Your task to perform on an android device: change the clock display to analog Image 0: 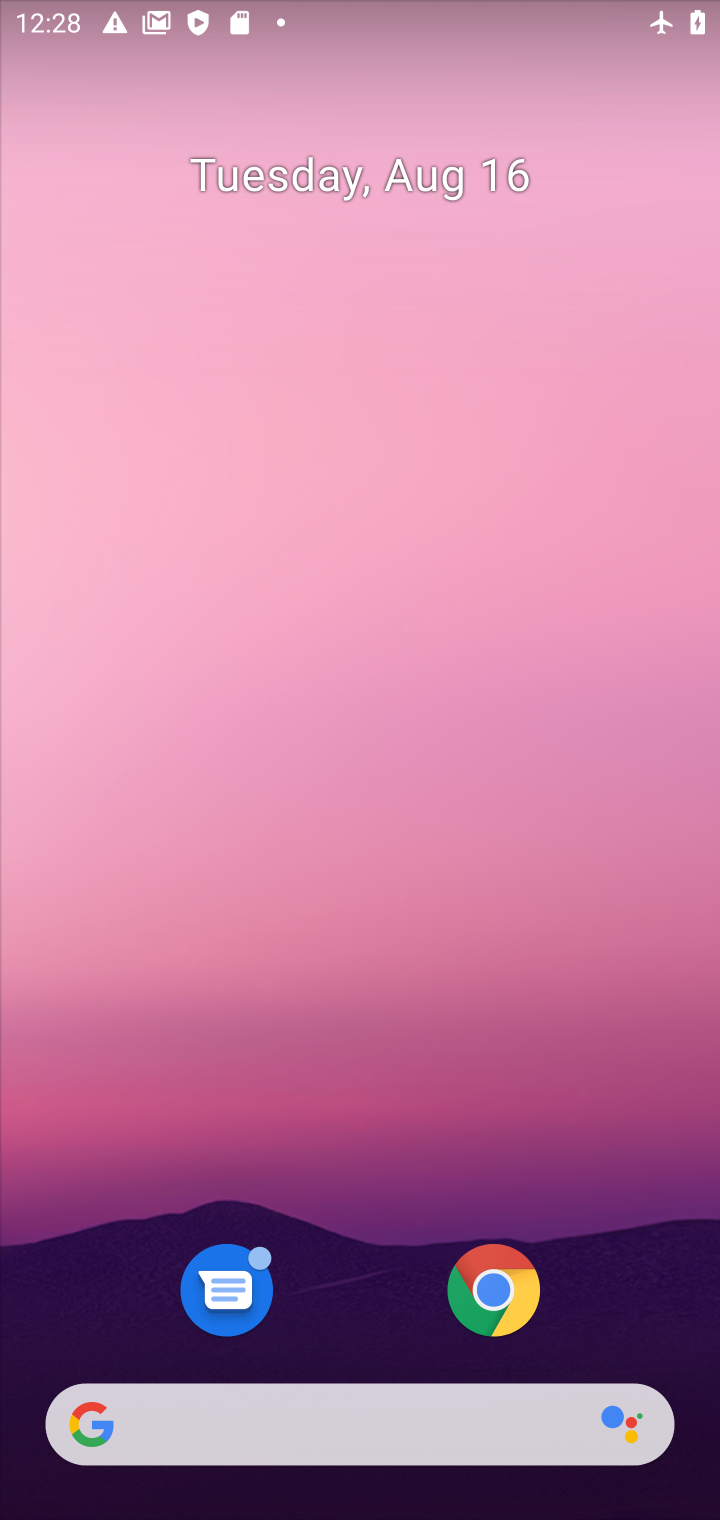
Step 0: press home button
Your task to perform on an android device: change the clock display to analog Image 1: 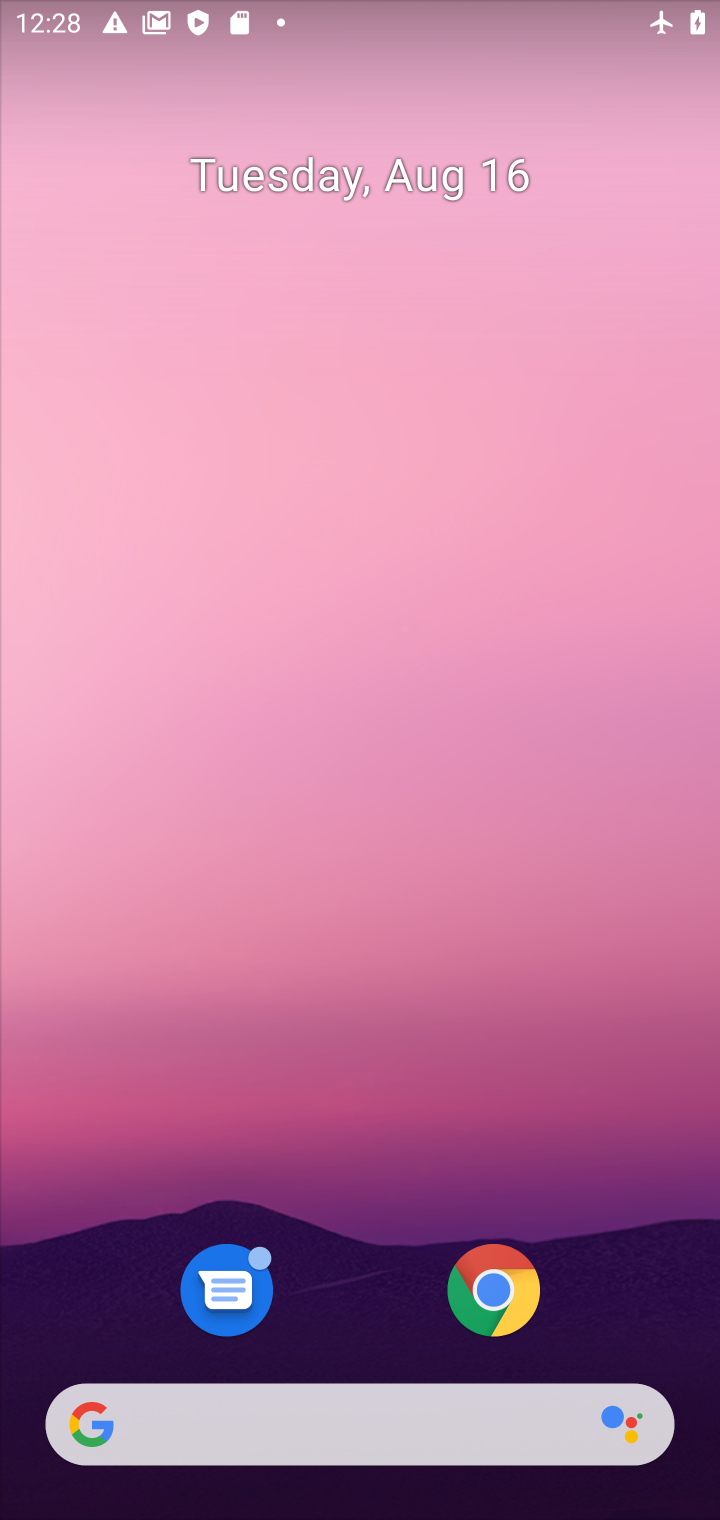
Step 1: drag from (362, 1047) to (372, 27)
Your task to perform on an android device: change the clock display to analog Image 2: 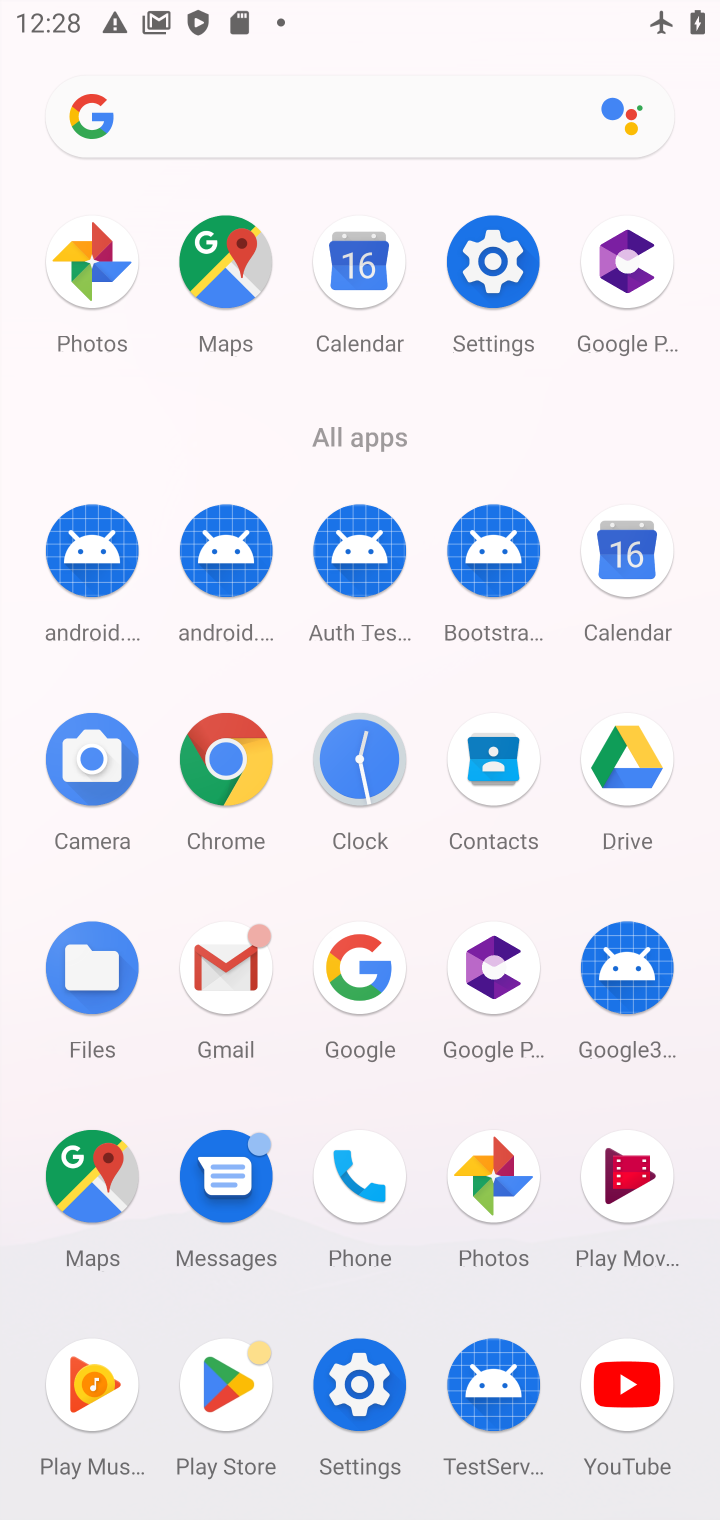
Step 2: click (360, 740)
Your task to perform on an android device: change the clock display to analog Image 3: 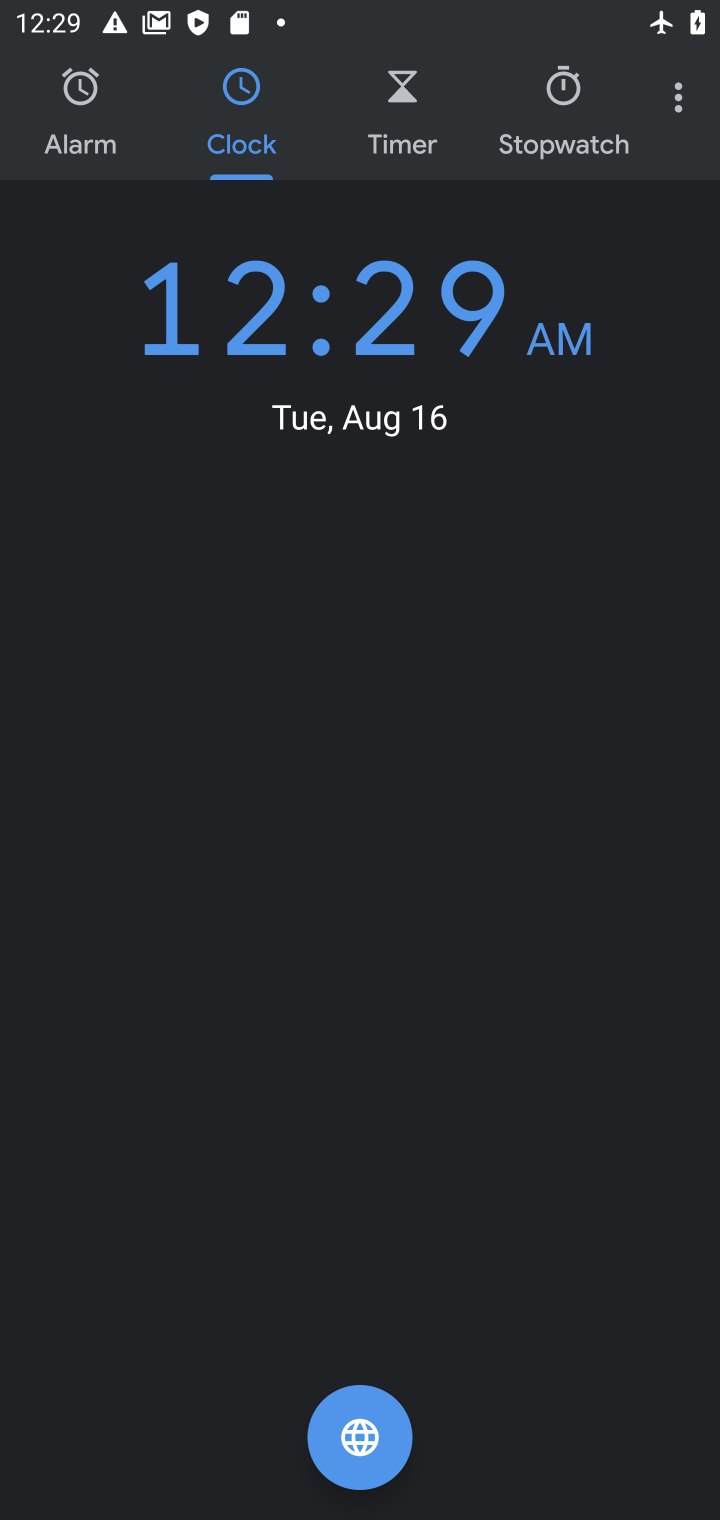
Step 3: click (670, 106)
Your task to perform on an android device: change the clock display to analog Image 4: 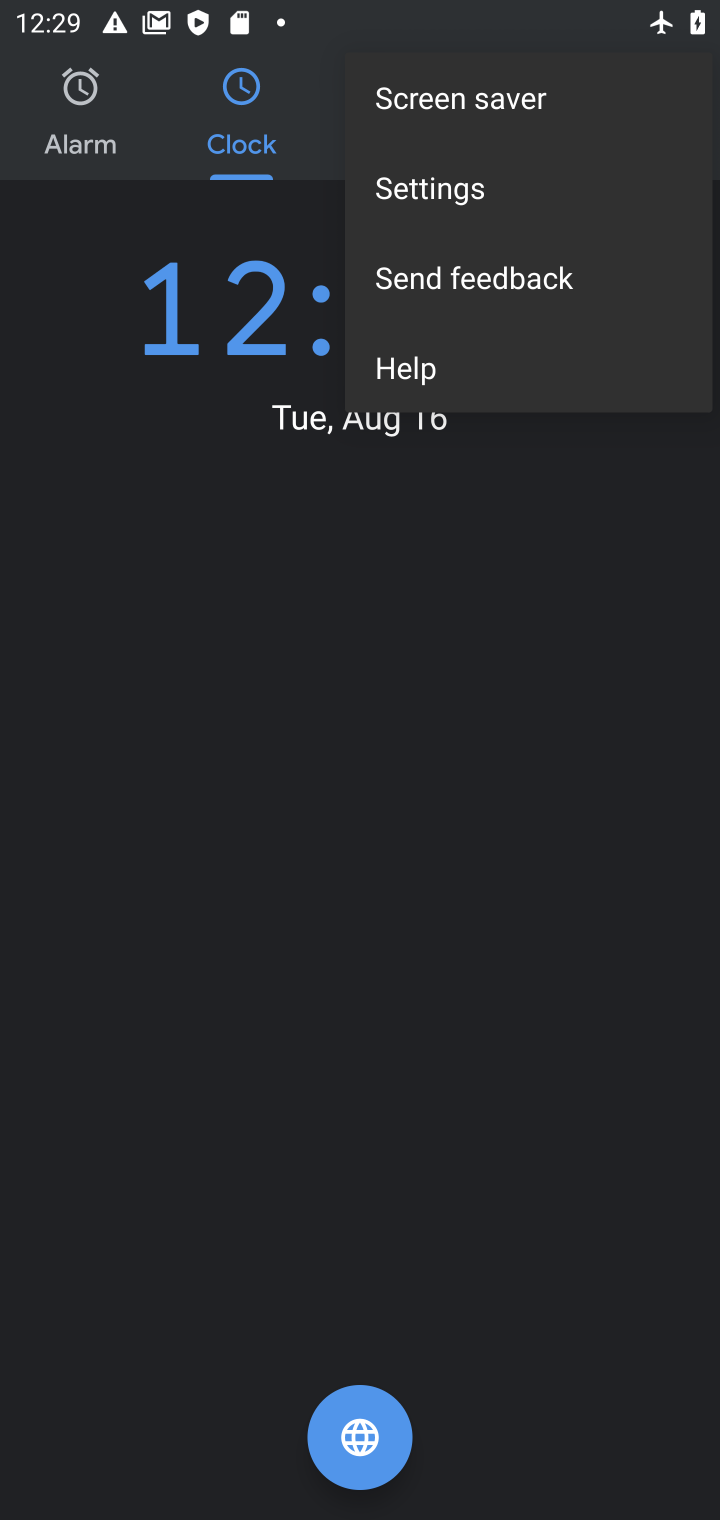
Step 4: click (509, 177)
Your task to perform on an android device: change the clock display to analog Image 5: 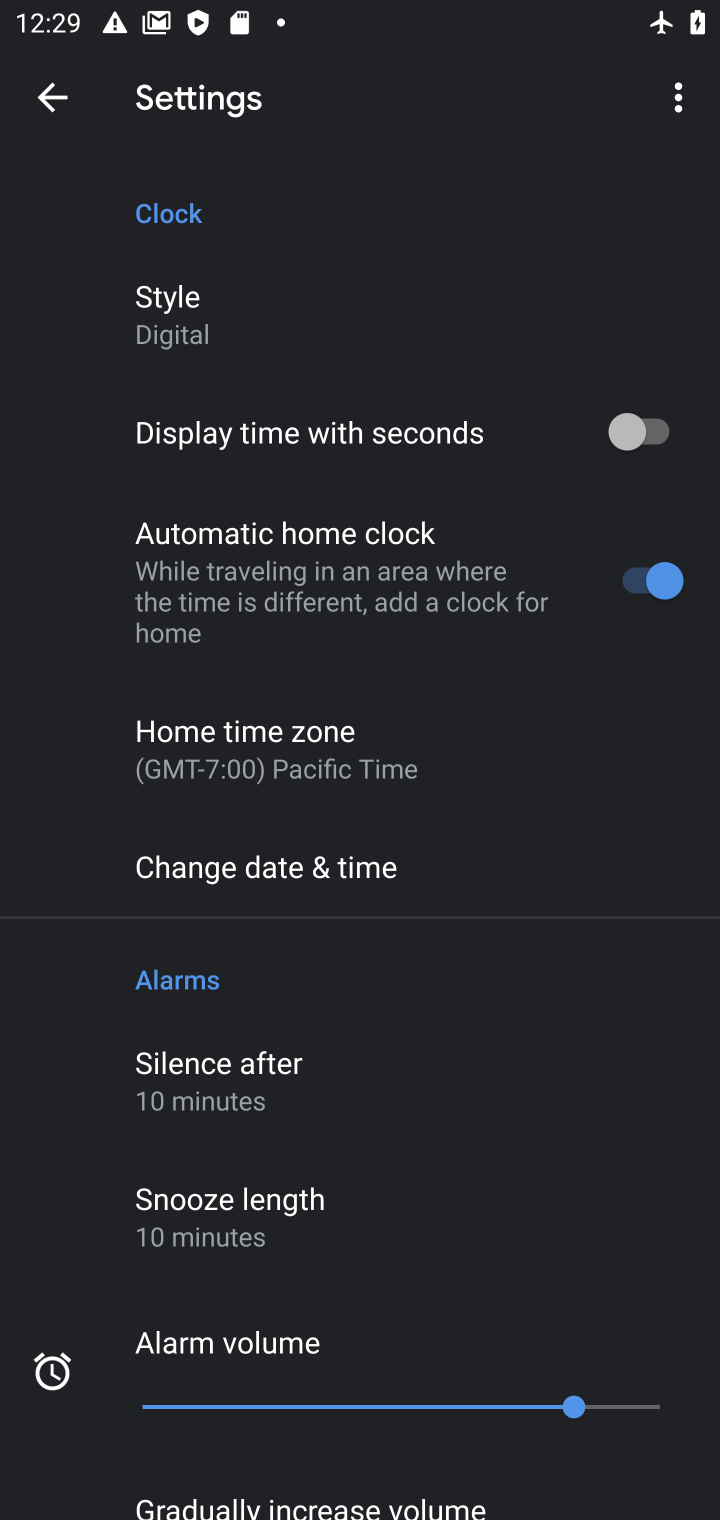
Step 5: click (266, 313)
Your task to perform on an android device: change the clock display to analog Image 6: 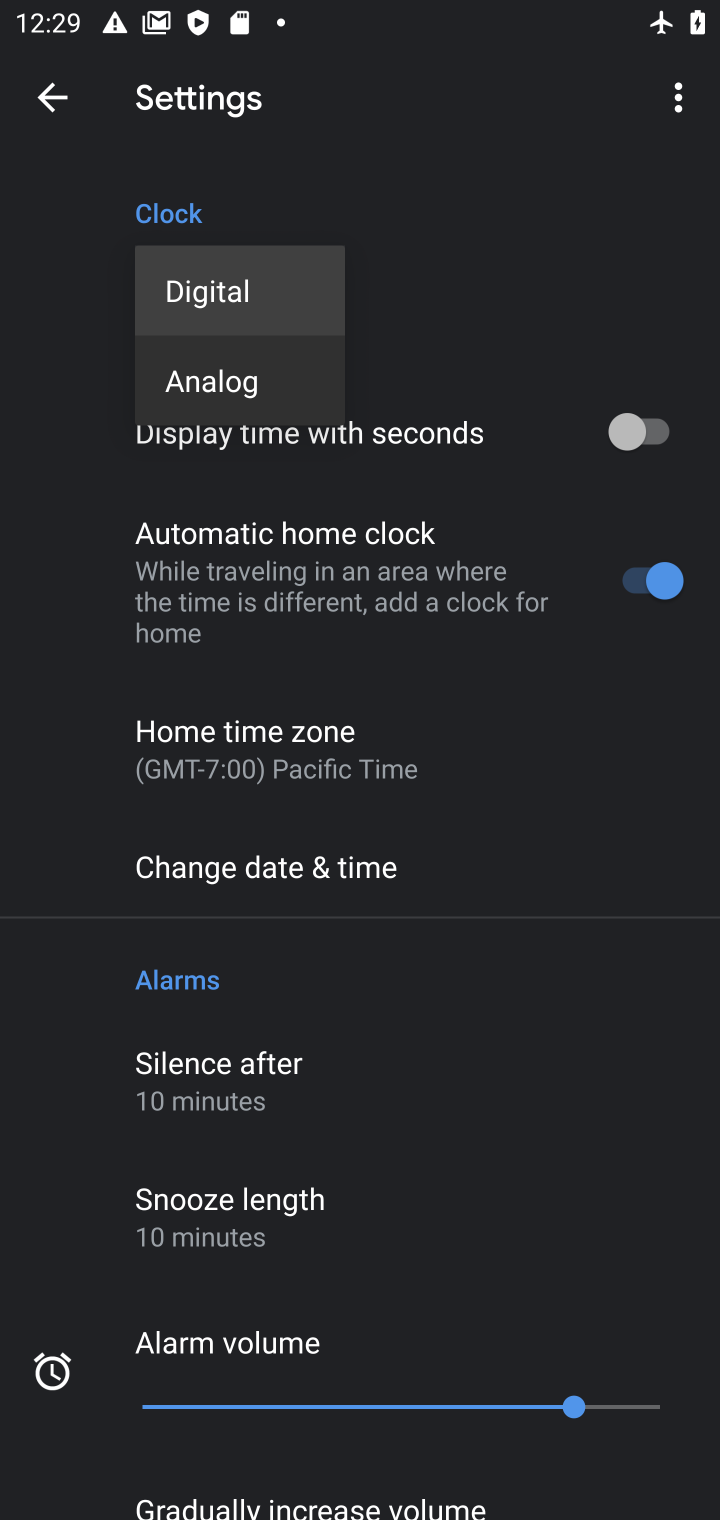
Step 6: click (255, 390)
Your task to perform on an android device: change the clock display to analog Image 7: 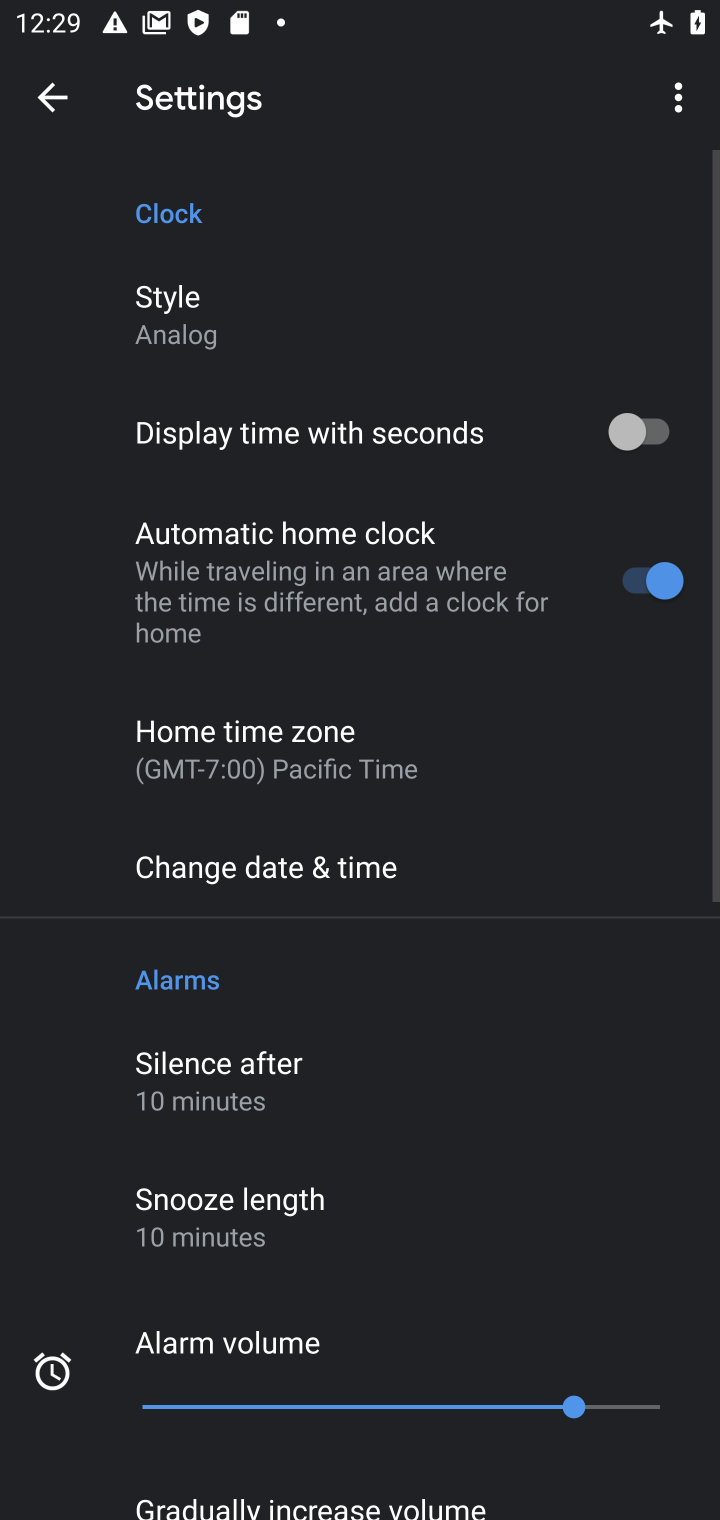
Step 7: task complete